Your task to perform on an android device: check the backup settings in the google photos Image 0: 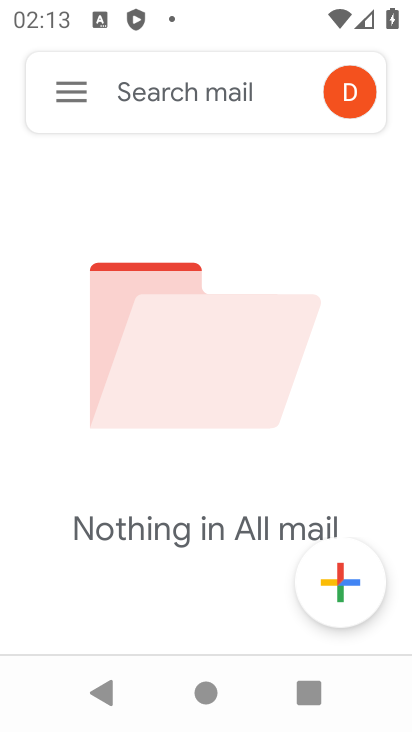
Step 0: press home button
Your task to perform on an android device: check the backup settings in the google photos Image 1: 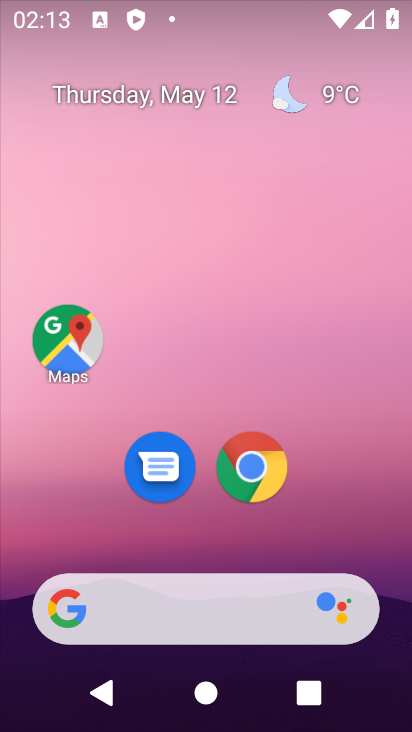
Step 1: drag from (315, 402) to (315, 248)
Your task to perform on an android device: check the backup settings in the google photos Image 2: 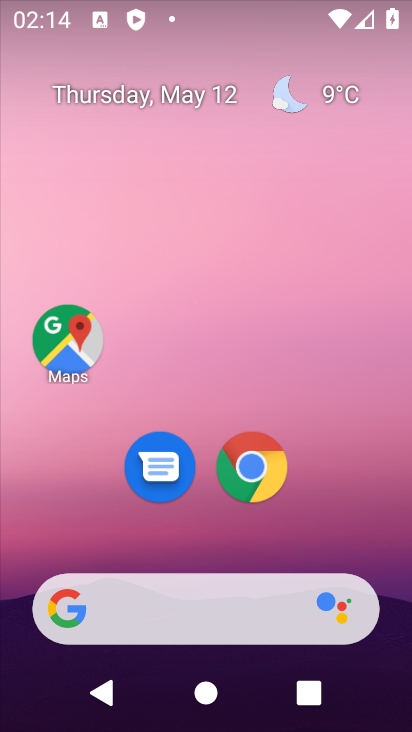
Step 2: drag from (192, 479) to (197, 221)
Your task to perform on an android device: check the backup settings in the google photos Image 3: 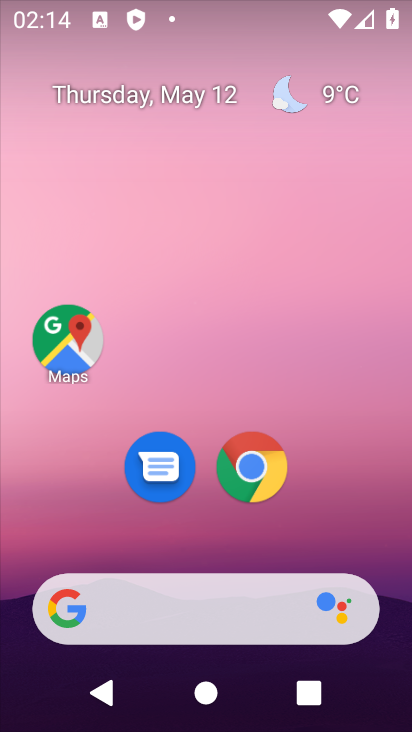
Step 3: drag from (153, 667) to (202, 238)
Your task to perform on an android device: check the backup settings in the google photos Image 4: 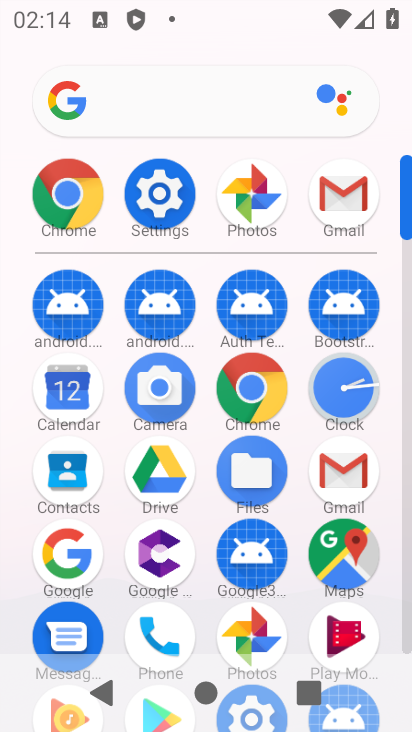
Step 4: click (234, 625)
Your task to perform on an android device: check the backup settings in the google photos Image 5: 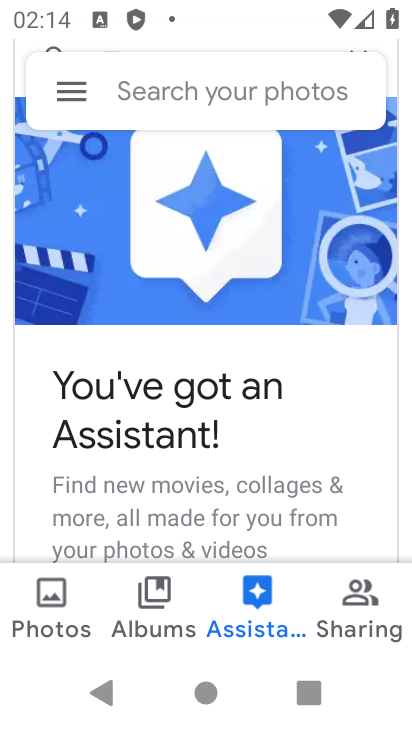
Step 5: click (67, 87)
Your task to perform on an android device: check the backup settings in the google photos Image 6: 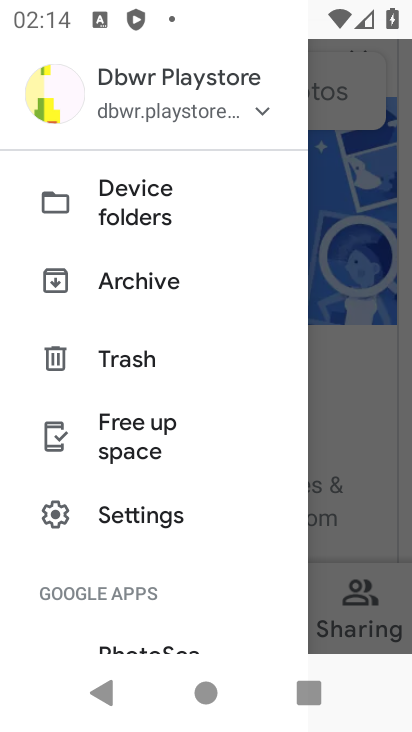
Step 6: click (150, 511)
Your task to perform on an android device: check the backup settings in the google photos Image 7: 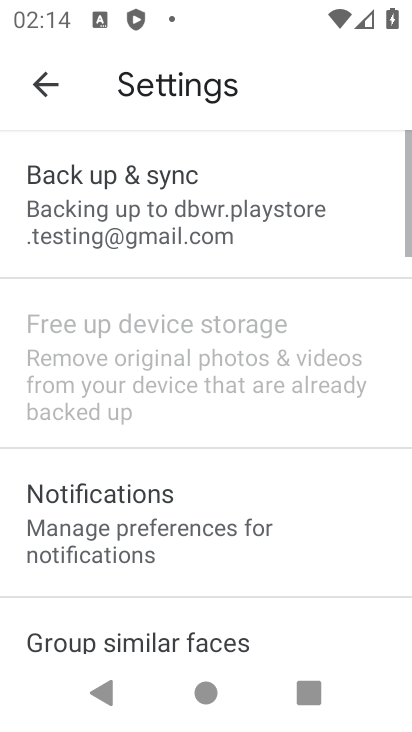
Step 7: click (139, 201)
Your task to perform on an android device: check the backup settings in the google photos Image 8: 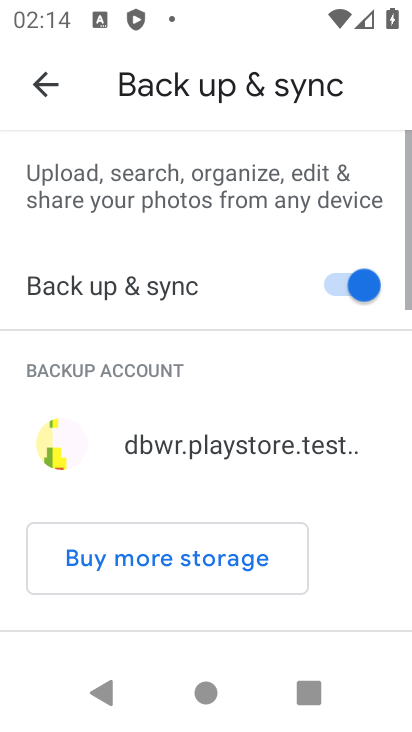
Step 8: task complete